Your task to perform on an android device: toggle priority inbox in the gmail app Image 0: 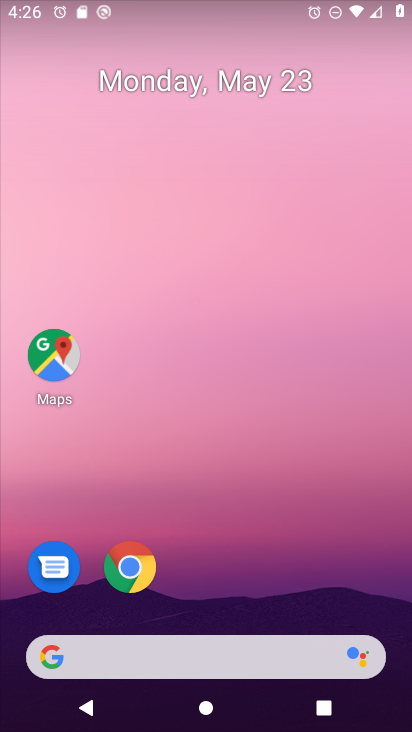
Step 0: drag from (400, 627) to (354, 89)
Your task to perform on an android device: toggle priority inbox in the gmail app Image 1: 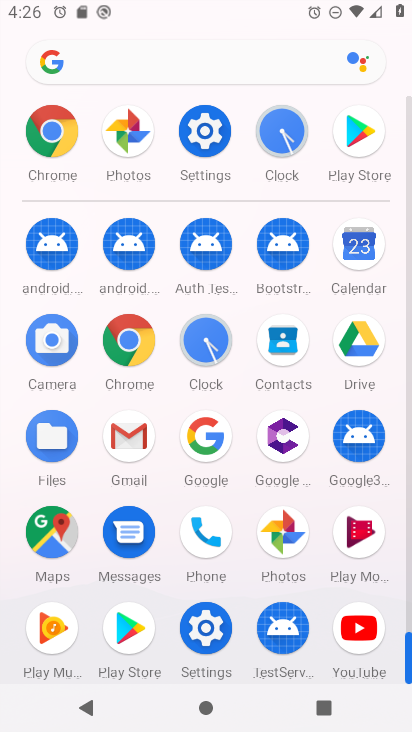
Step 1: click (132, 439)
Your task to perform on an android device: toggle priority inbox in the gmail app Image 2: 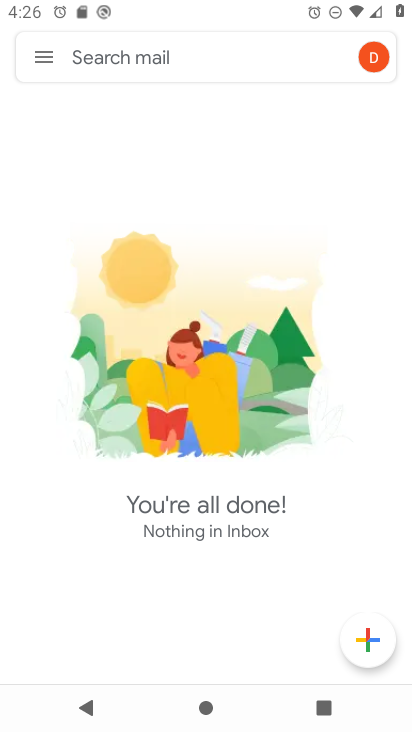
Step 2: click (41, 52)
Your task to perform on an android device: toggle priority inbox in the gmail app Image 3: 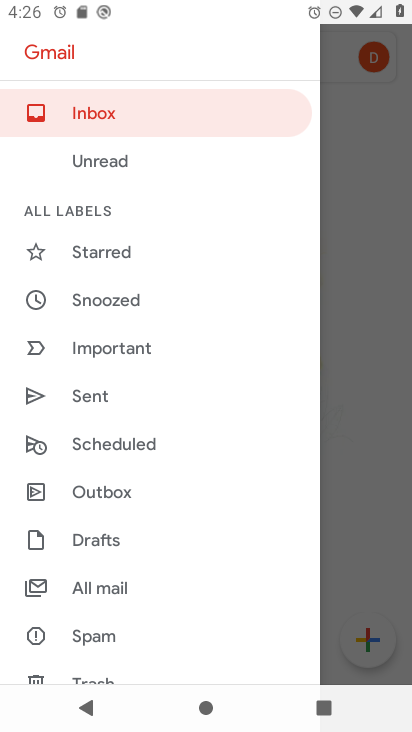
Step 3: drag from (184, 623) to (212, 125)
Your task to perform on an android device: toggle priority inbox in the gmail app Image 4: 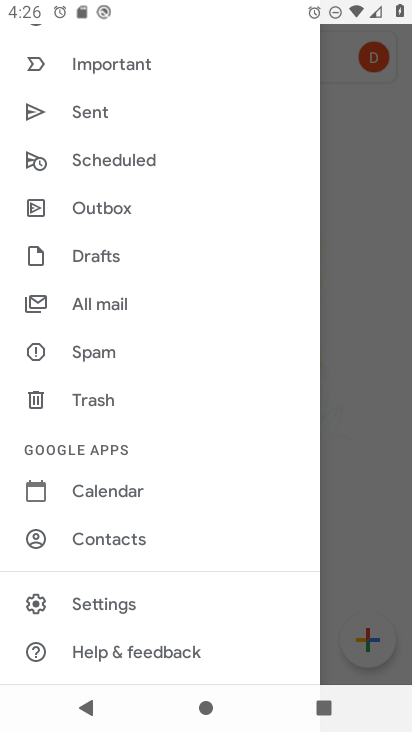
Step 4: click (116, 586)
Your task to perform on an android device: toggle priority inbox in the gmail app Image 5: 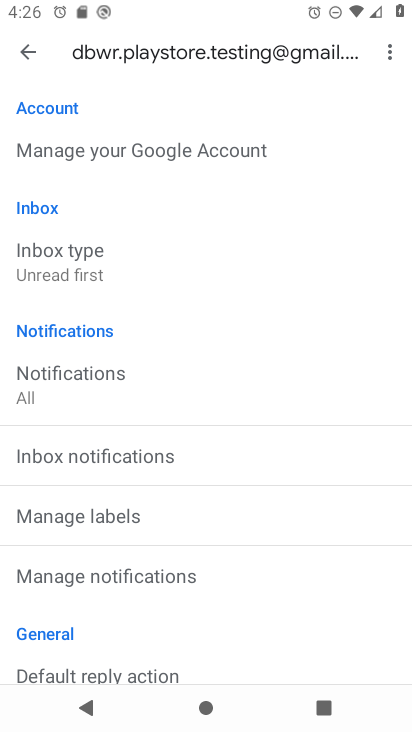
Step 5: click (62, 275)
Your task to perform on an android device: toggle priority inbox in the gmail app Image 6: 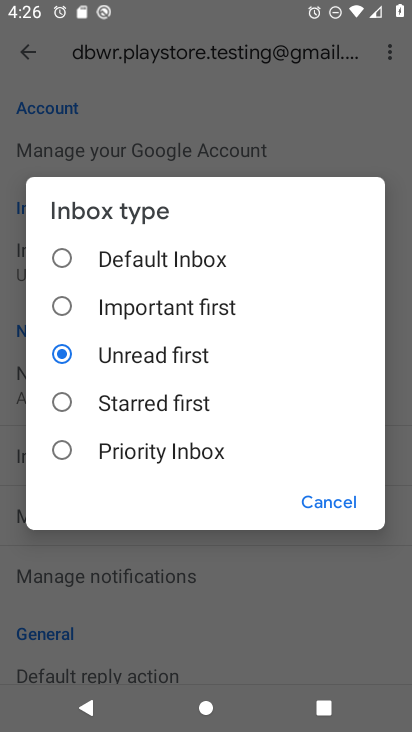
Step 6: click (63, 449)
Your task to perform on an android device: toggle priority inbox in the gmail app Image 7: 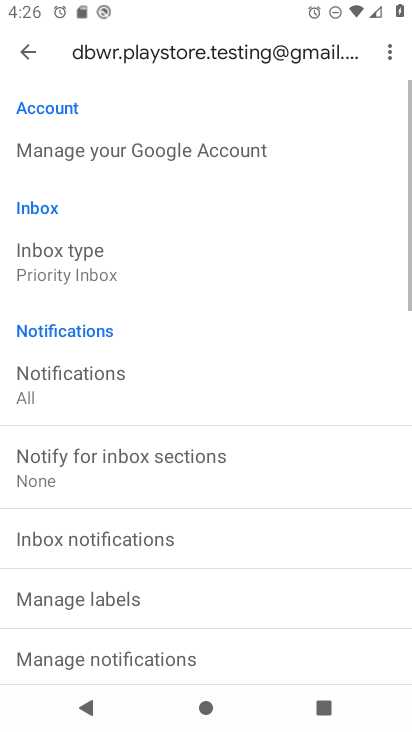
Step 7: task complete